Your task to perform on an android device: change alarm snooze length Image 0: 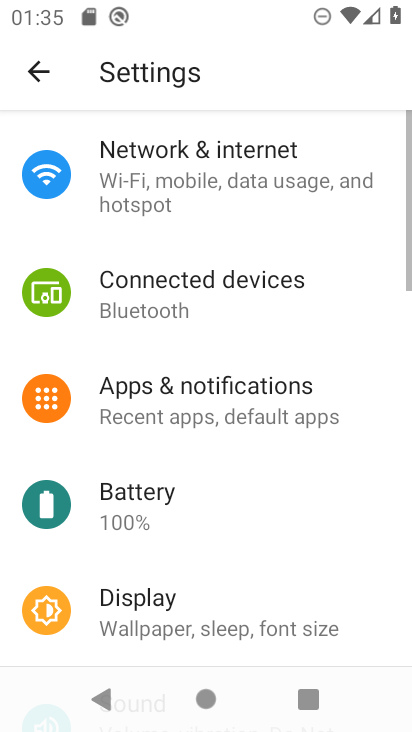
Step 0: press home button
Your task to perform on an android device: change alarm snooze length Image 1: 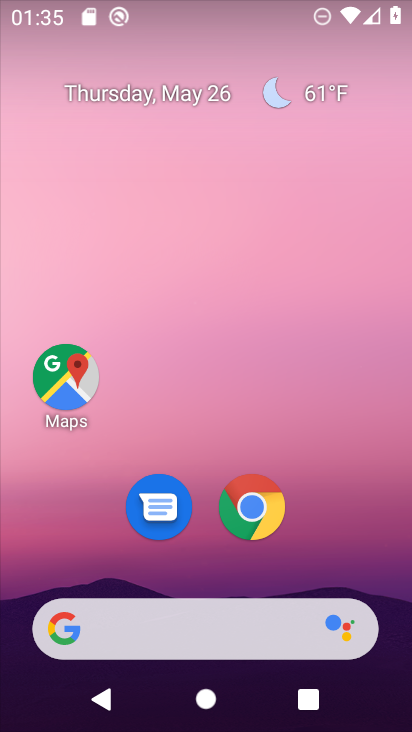
Step 1: drag from (355, 550) to (355, 229)
Your task to perform on an android device: change alarm snooze length Image 2: 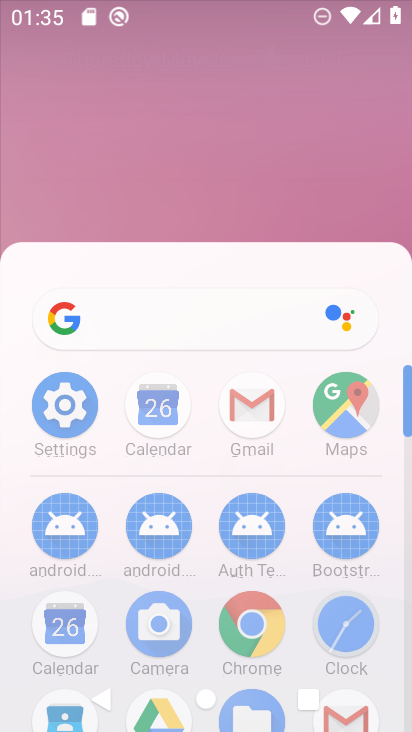
Step 2: click (351, 102)
Your task to perform on an android device: change alarm snooze length Image 3: 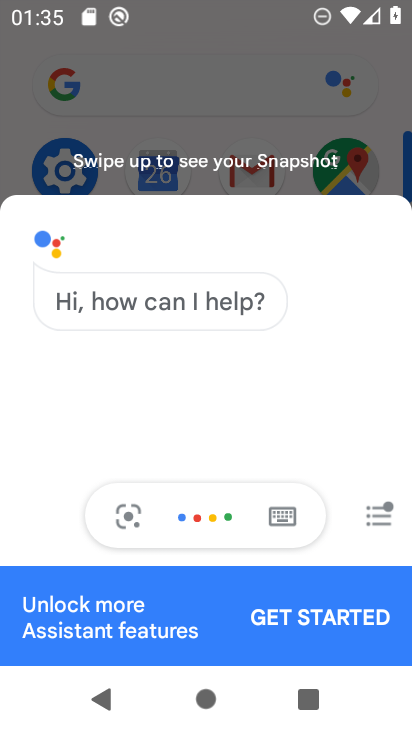
Step 3: click (288, 121)
Your task to perform on an android device: change alarm snooze length Image 4: 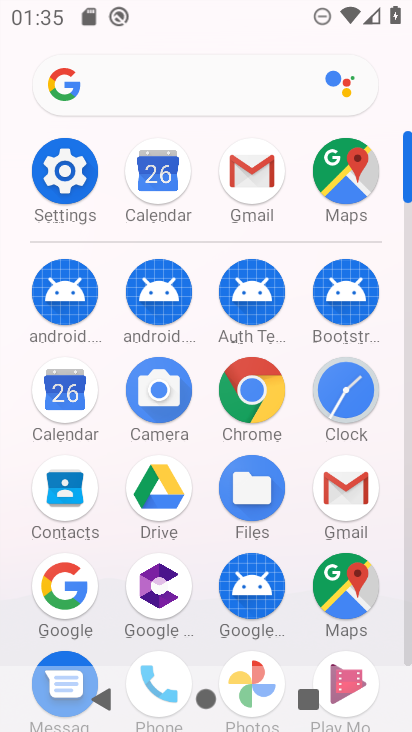
Step 4: click (351, 384)
Your task to perform on an android device: change alarm snooze length Image 5: 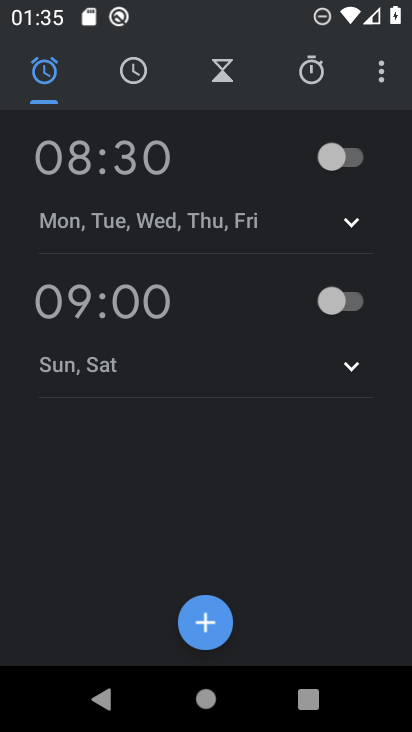
Step 5: click (382, 90)
Your task to perform on an android device: change alarm snooze length Image 6: 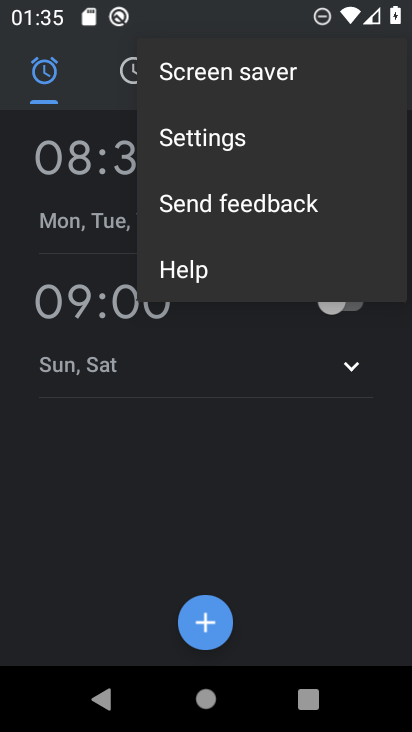
Step 6: click (267, 141)
Your task to perform on an android device: change alarm snooze length Image 7: 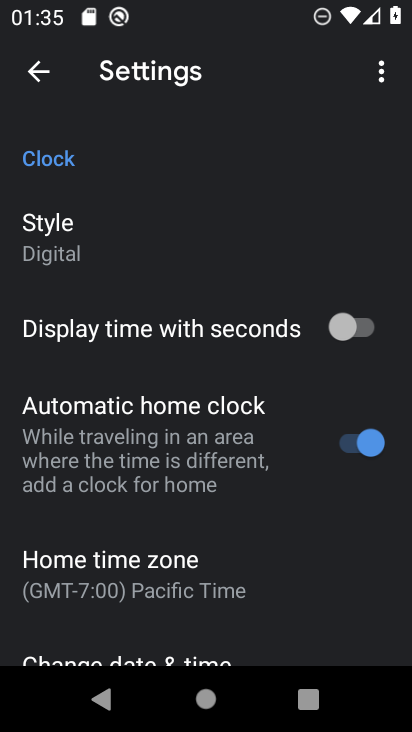
Step 7: drag from (202, 601) to (245, 349)
Your task to perform on an android device: change alarm snooze length Image 8: 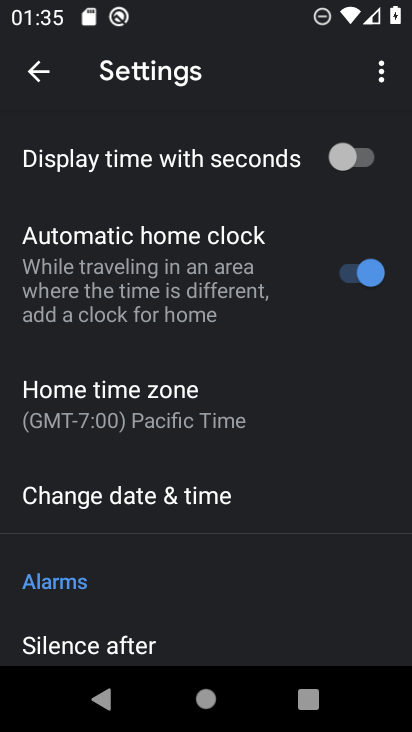
Step 8: drag from (193, 576) to (265, 211)
Your task to perform on an android device: change alarm snooze length Image 9: 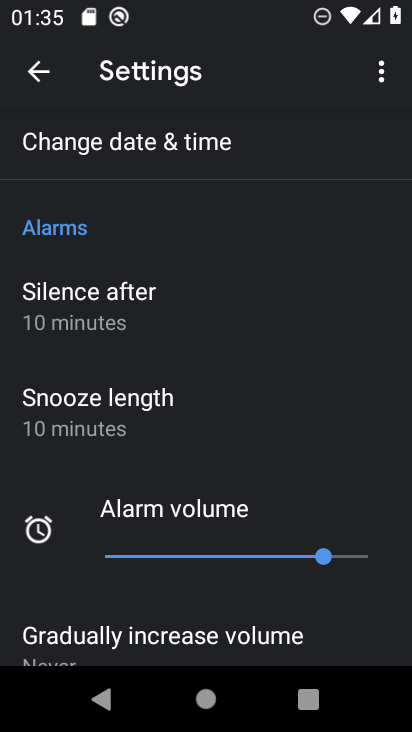
Step 9: click (217, 404)
Your task to perform on an android device: change alarm snooze length Image 10: 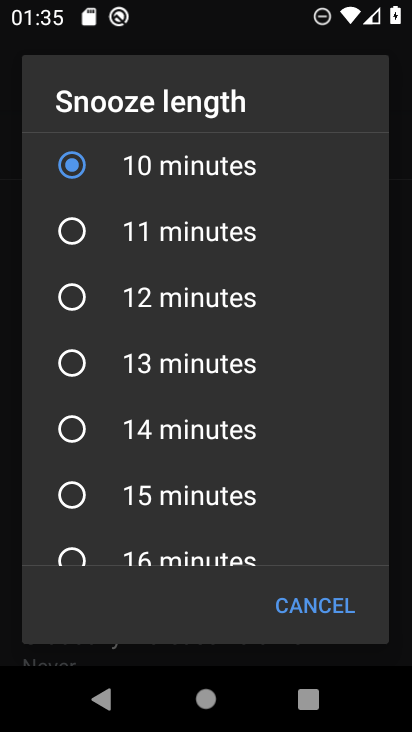
Step 10: click (216, 285)
Your task to perform on an android device: change alarm snooze length Image 11: 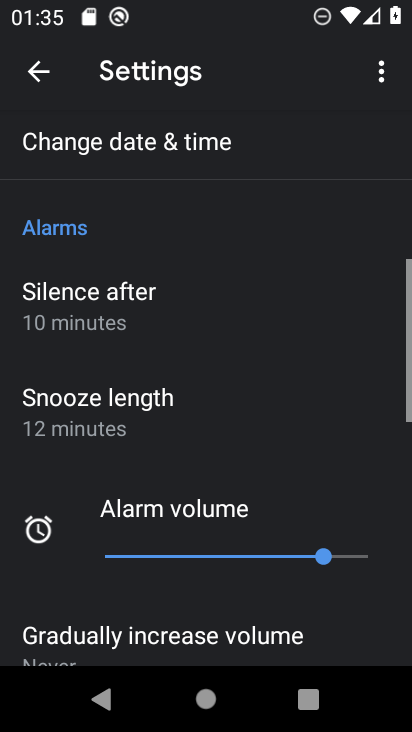
Step 11: task complete